Your task to perform on an android device: Show me productivity apps on the Play Store Image 0: 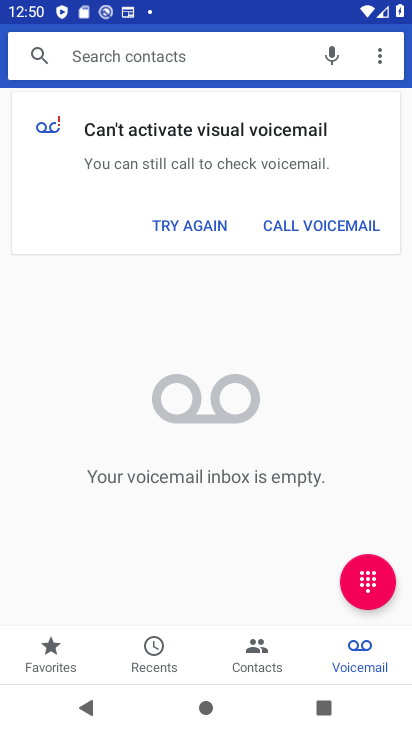
Step 0: press home button
Your task to perform on an android device: Show me productivity apps on the Play Store Image 1: 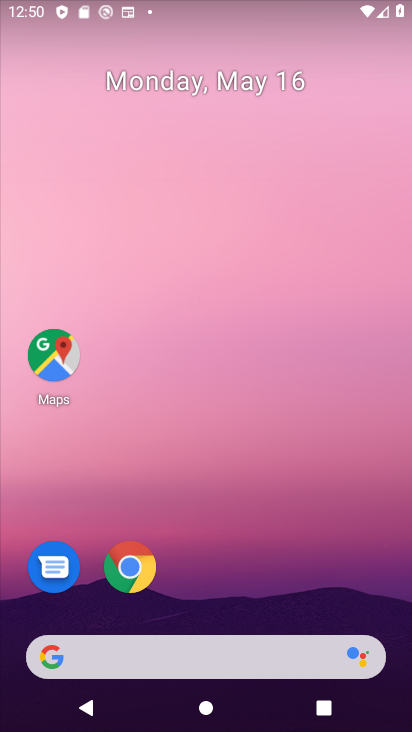
Step 1: drag from (215, 596) to (245, 70)
Your task to perform on an android device: Show me productivity apps on the Play Store Image 2: 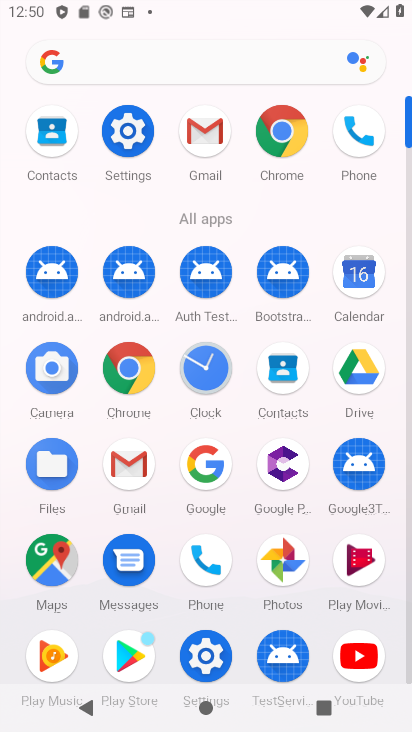
Step 2: click (136, 651)
Your task to perform on an android device: Show me productivity apps on the Play Store Image 3: 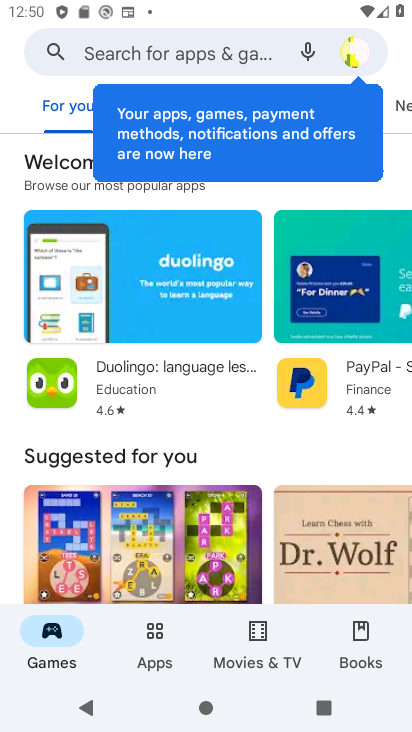
Step 3: click (148, 646)
Your task to perform on an android device: Show me productivity apps on the Play Store Image 4: 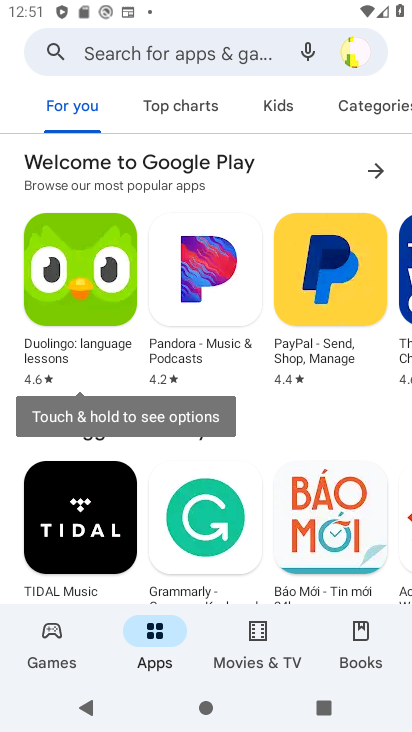
Step 4: click (360, 117)
Your task to perform on an android device: Show me productivity apps on the Play Store Image 5: 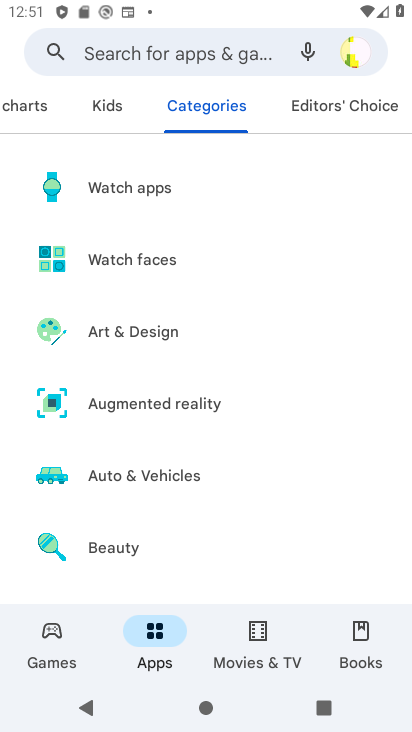
Step 5: drag from (253, 525) to (228, 74)
Your task to perform on an android device: Show me productivity apps on the Play Store Image 6: 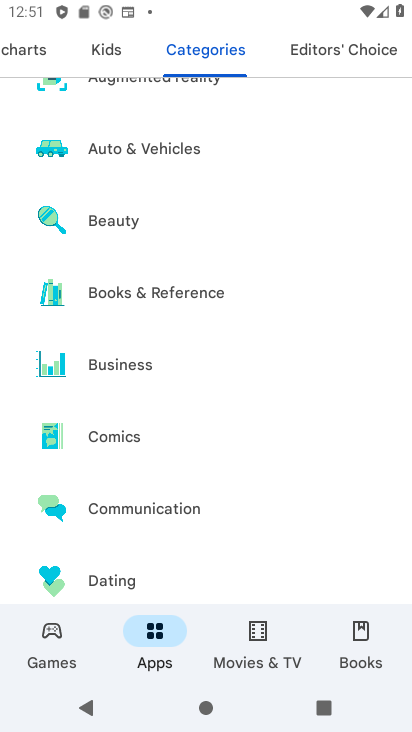
Step 6: click (200, 106)
Your task to perform on an android device: Show me productivity apps on the Play Store Image 7: 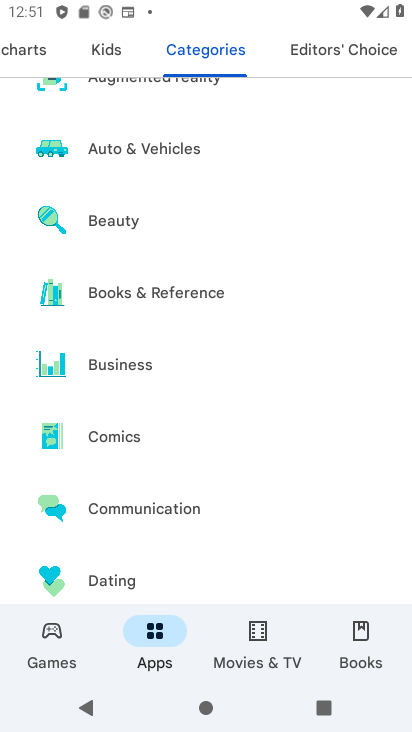
Step 7: drag from (153, 582) to (125, 122)
Your task to perform on an android device: Show me productivity apps on the Play Store Image 8: 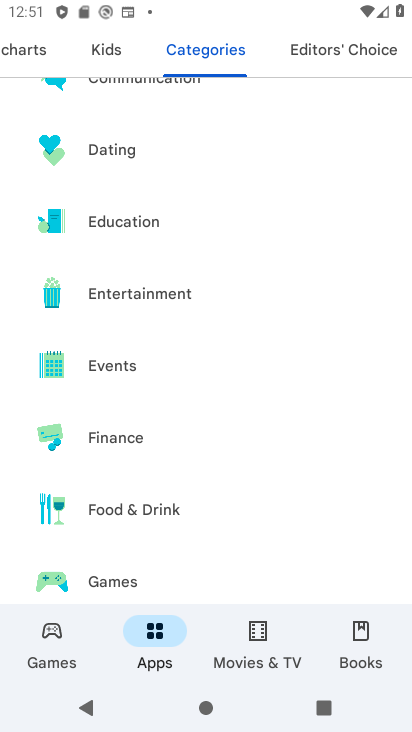
Step 8: drag from (134, 531) to (104, 126)
Your task to perform on an android device: Show me productivity apps on the Play Store Image 9: 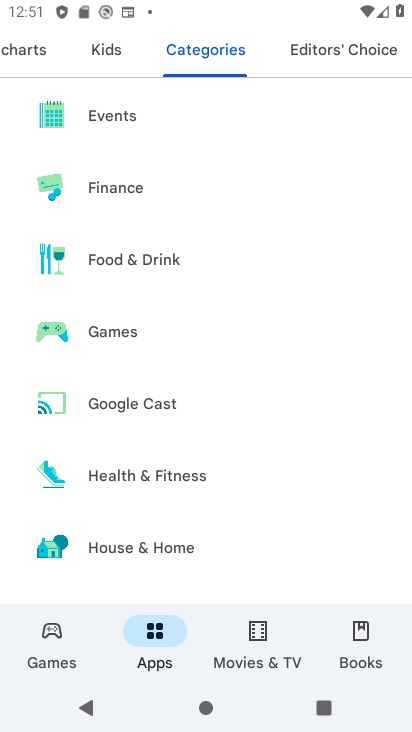
Step 9: drag from (121, 456) to (106, 47)
Your task to perform on an android device: Show me productivity apps on the Play Store Image 10: 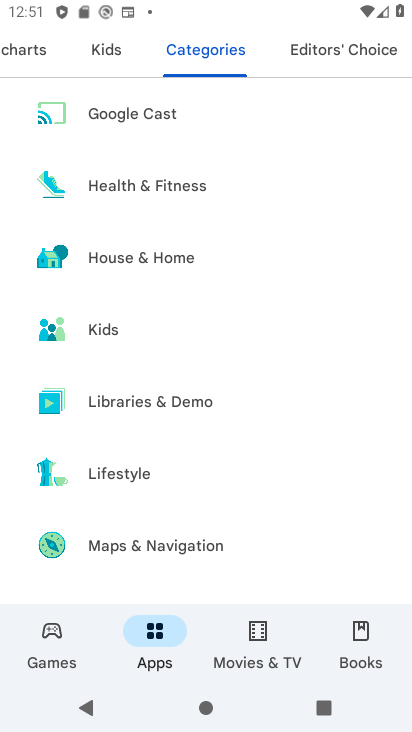
Step 10: drag from (146, 552) to (120, 209)
Your task to perform on an android device: Show me productivity apps on the Play Store Image 11: 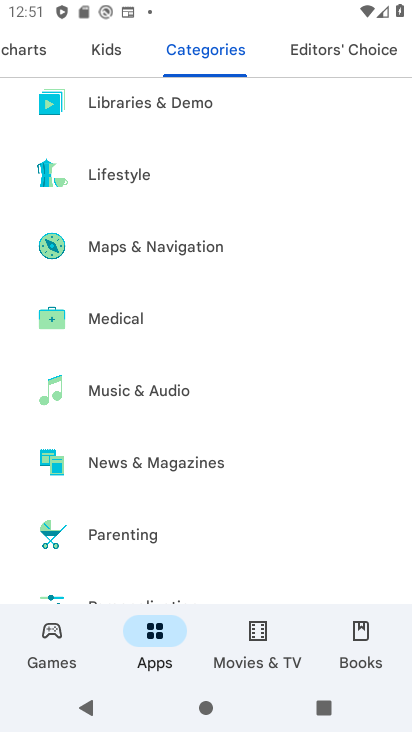
Step 11: drag from (171, 558) to (152, 103)
Your task to perform on an android device: Show me productivity apps on the Play Store Image 12: 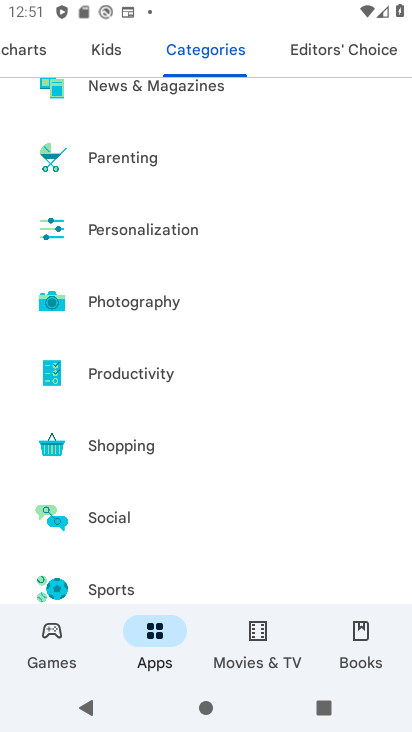
Step 12: click (165, 371)
Your task to perform on an android device: Show me productivity apps on the Play Store Image 13: 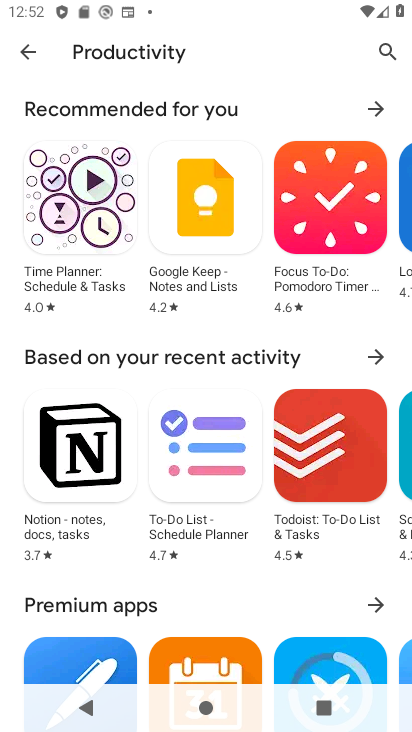
Step 13: task complete